Your task to perform on an android device: make emails show in primary in the gmail app Image 0: 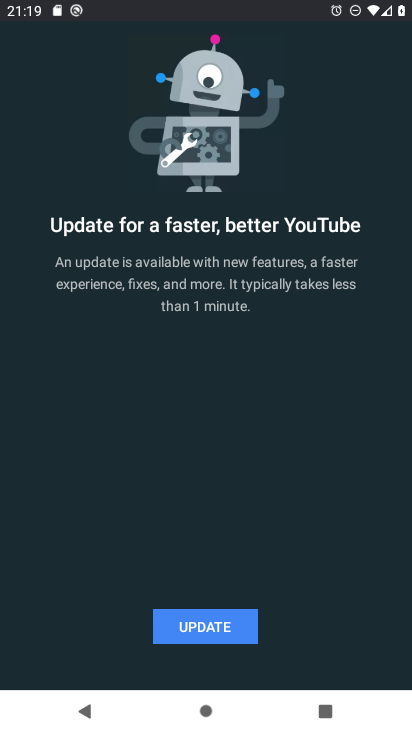
Step 0: press home button
Your task to perform on an android device: make emails show in primary in the gmail app Image 1: 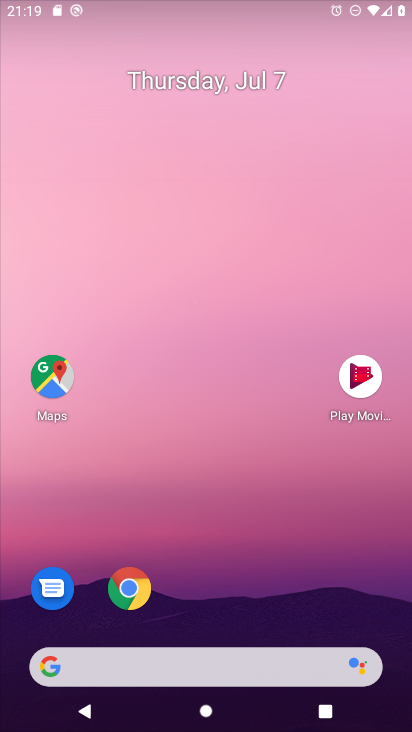
Step 1: drag from (318, 627) to (259, 202)
Your task to perform on an android device: make emails show in primary in the gmail app Image 2: 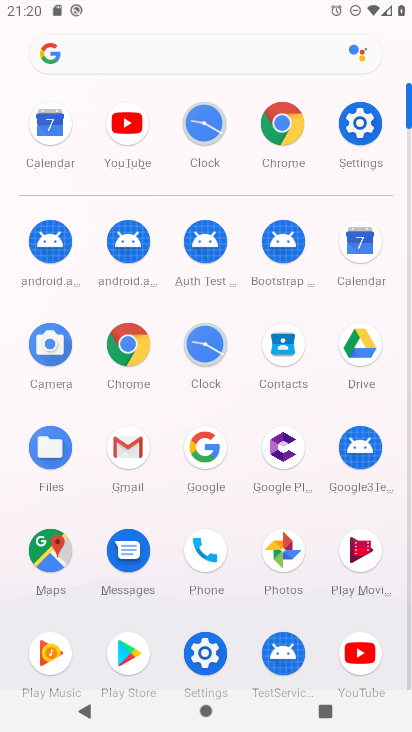
Step 2: click (124, 446)
Your task to perform on an android device: make emails show in primary in the gmail app Image 3: 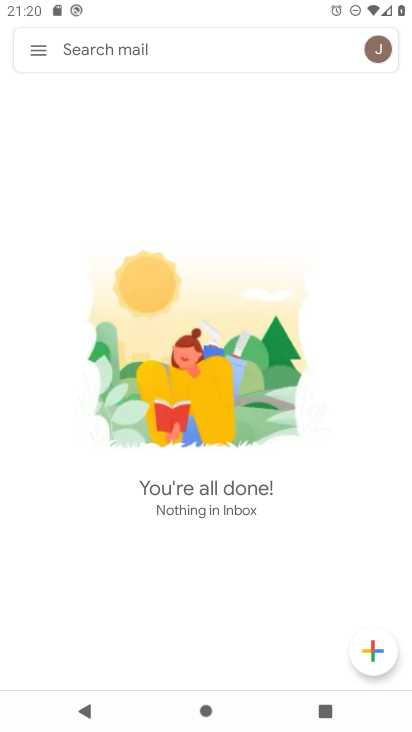
Step 3: click (42, 47)
Your task to perform on an android device: make emails show in primary in the gmail app Image 4: 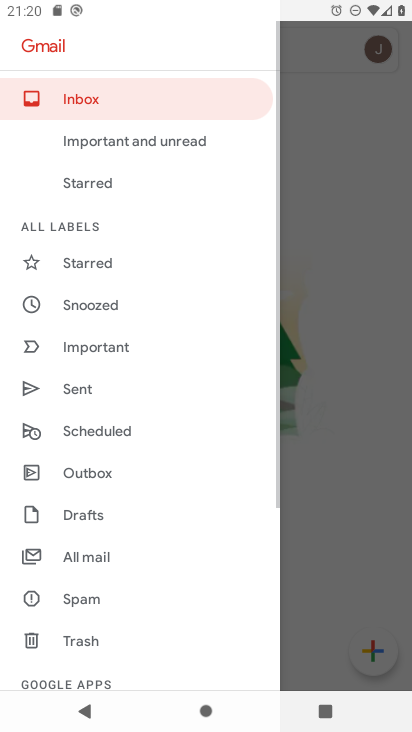
Step 4: click (97, 556)
Your task to perform on an android device: make emails show in primary in the gmail app Image 5: 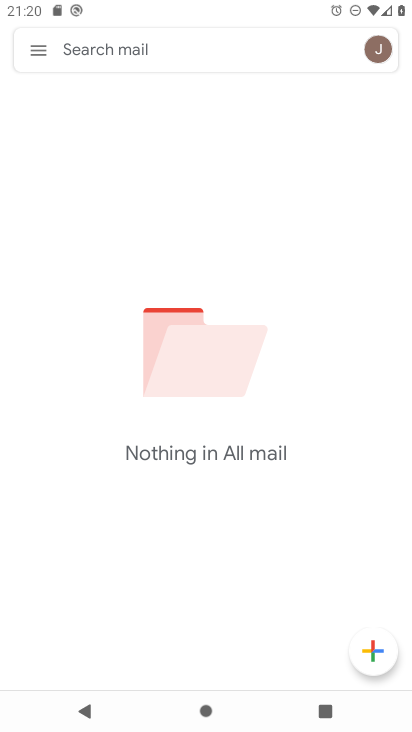
Step 5: task complete